Your task to perform on an android device: turn on the 12-hour format for clock Image 0: 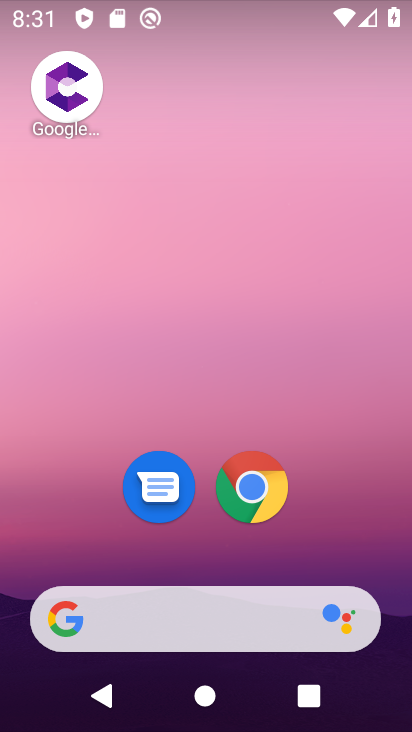
Step 0: drag from (275, 664) to (301, 187)
Your task to perform on an android device: turn on the 12-hour format for clock Image 1: 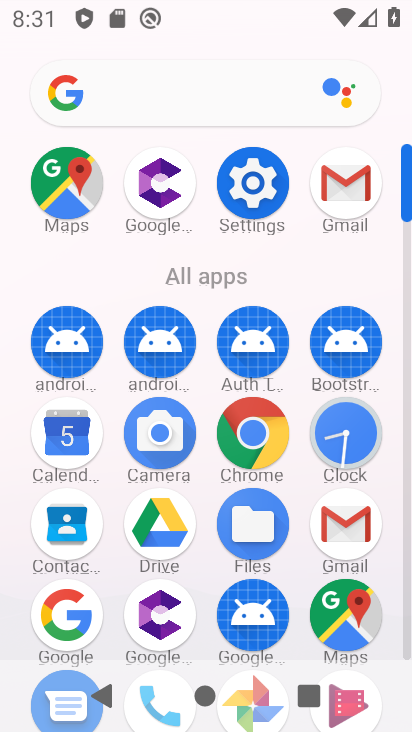
Step 1: click (333, 437)
Your task to perform on an android device: turn on the 12-hour format for clock Image 2: 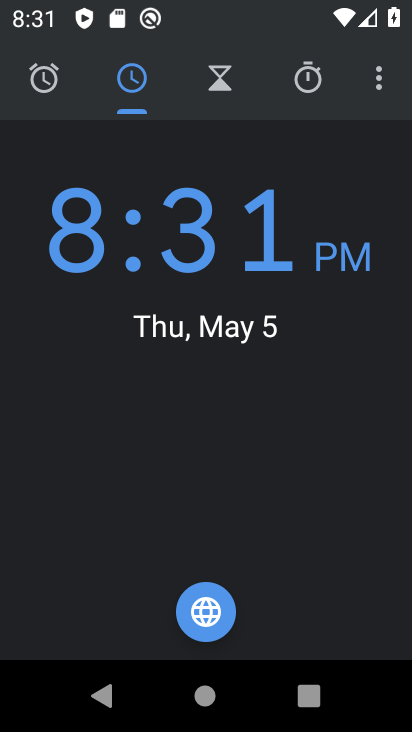
Step 2: click (378, 92)
Your task to perform on an android device: turn on the 12-hour format for clock Image 3: 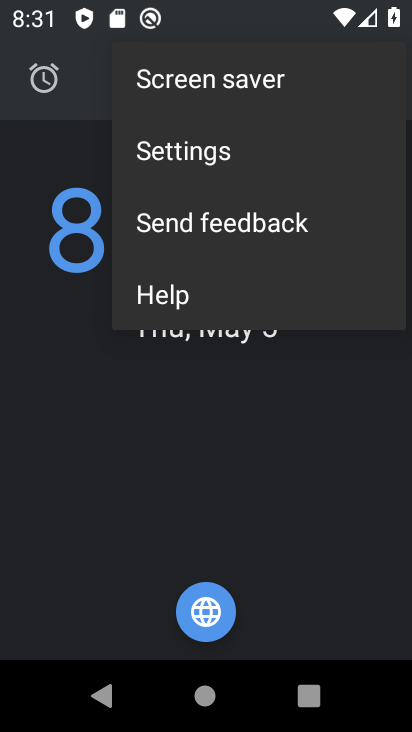
Step 3: click (238, 167)
Your task to perform on an android device: turn on the 12-hour format for clock Image 4: 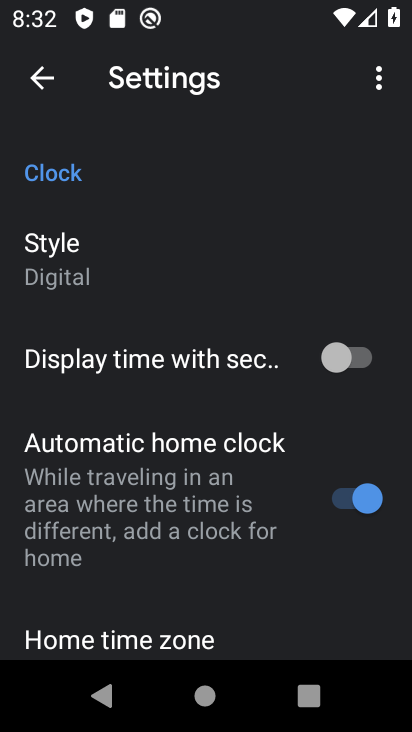
Step 4: drag from (133, 537) to (246, 188)
Your task to perform on an android device: turn on the 12-hour format for clock Image 5: 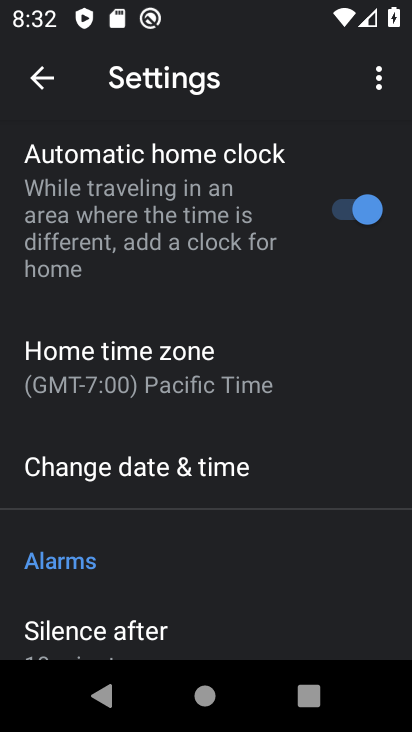
Step 5: click (160, 486)
Your task to perform on an android device: turn on the 12-hour format for clock Image 6: 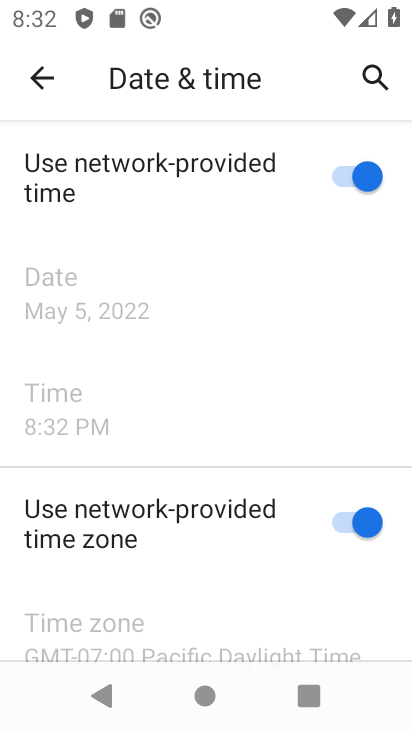
Step 6: drag from (189, 477) to (237, 300)
Your task to perform on an android device: turn on the 12-hour format for clock Image 7: 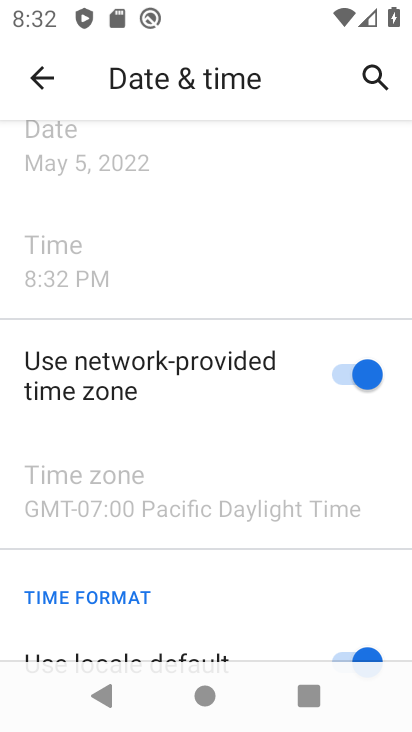
Step 7: drag from (212, 488) to (284, 247)
Your task to perform on an android device: turn on the 12-hour format for clock Image 8: 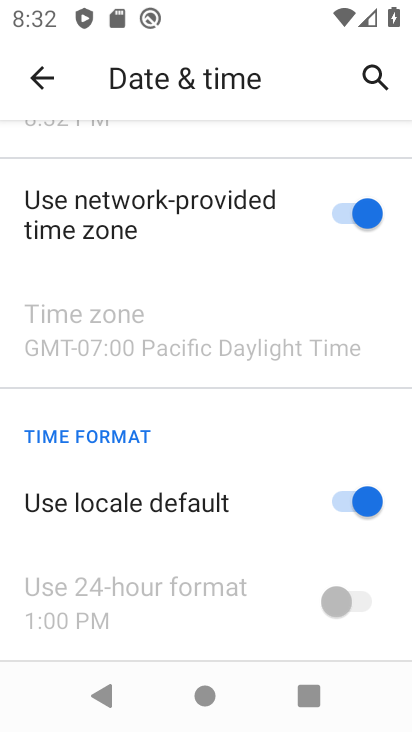
Step 8: click (365, 510)
Your task to perform on an android device: turn on the 12-hour format for clock Image 9: 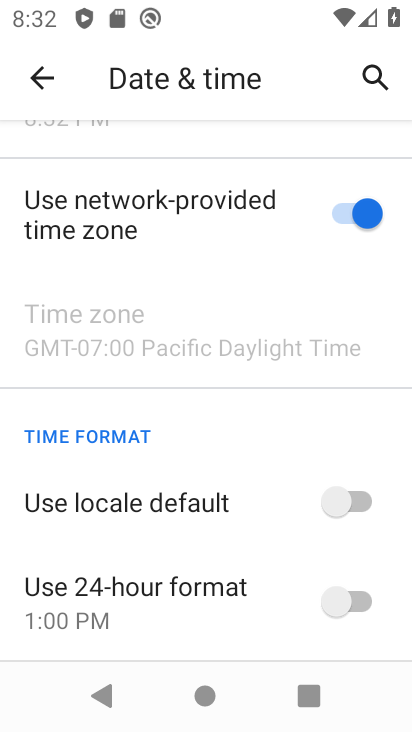
Step 9: click (345, 586)
Your task to perform on an android device: turn on the 12-hour format for clock Image 10: 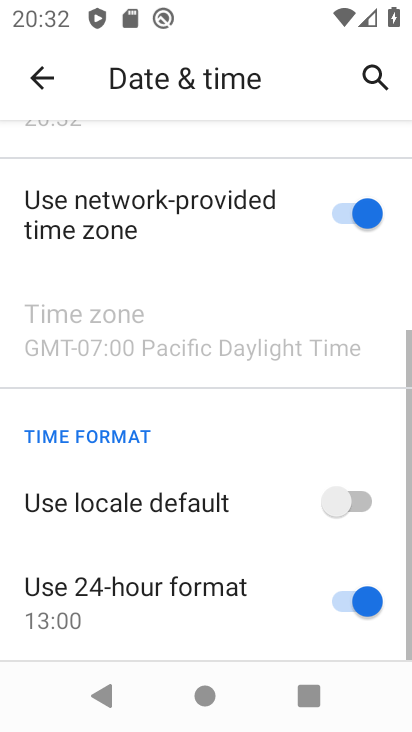
Step 10: click (342, 589)
Your task to perform on an android device: turn on the 12-hour format for clock Image 11: 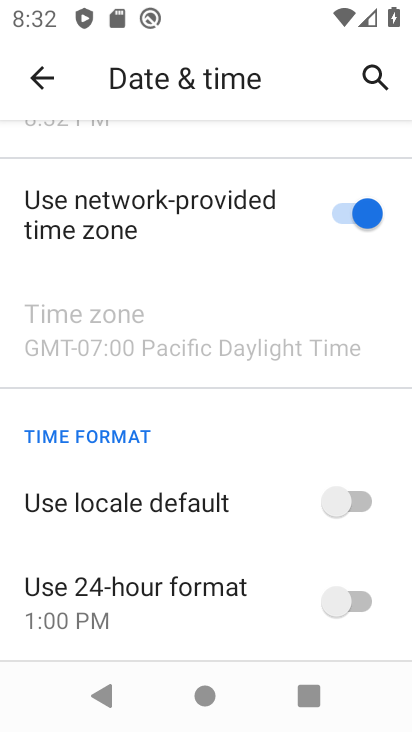
Step 11: task complete